Your task to perform on an android device: search for starred emails in the gmail app Image 0: 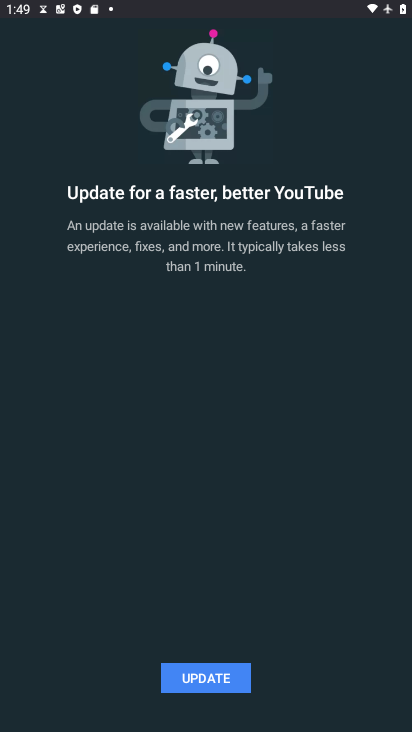
Step 0: press home button
Your task to perform on an android device: search for starred emails in the gmail app Image 1: 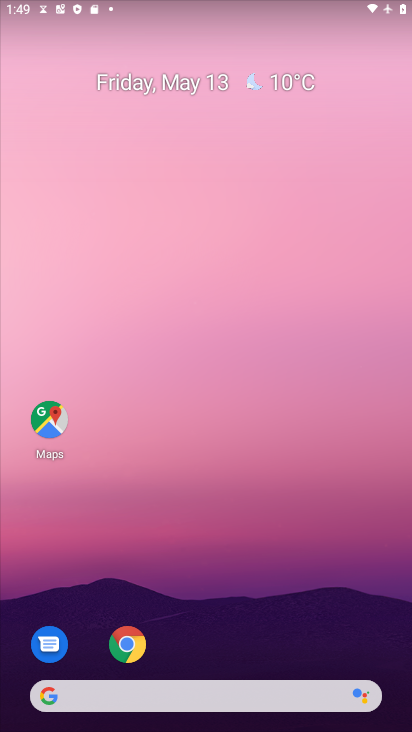
Step 1: drag from (209, 699) to (212, 190)
Your task to perform on an android device: search for starred emails in the gmail app Image 2: 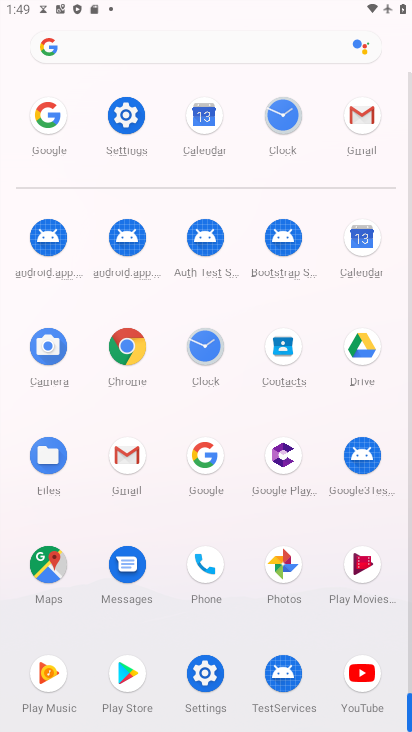
Step 2: click (130, 455)
Your task to perform on an android device: search for starred emails in the gmail app Image 3: 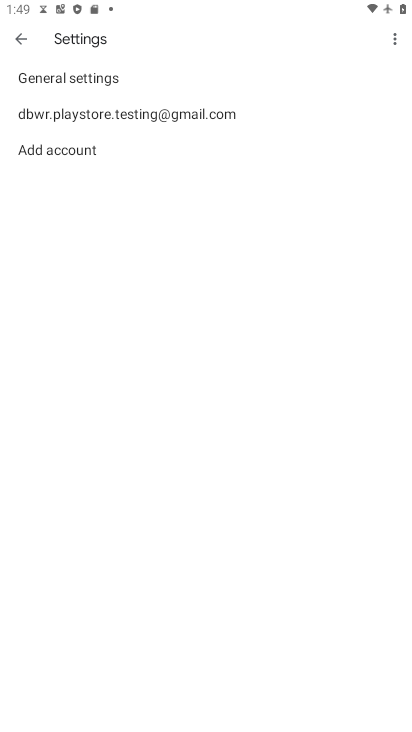
Step 3: click (20, 39)
Your task to perform on an android device: search for starred emails in the gmail app Image 4: 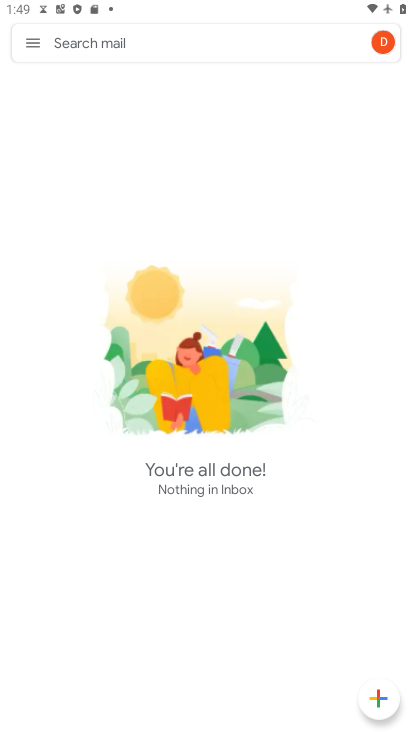
Step 4: click (31, 41)
Your task to perform on an android device: search for starred emails in the gmail app Image 5: 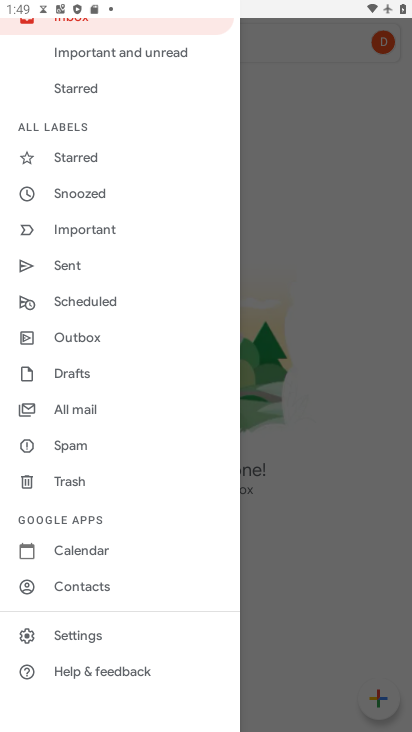
Step 5: click (88, 157)
Your task to perform on an android device: search for starred emails in the gmail app Image 6: 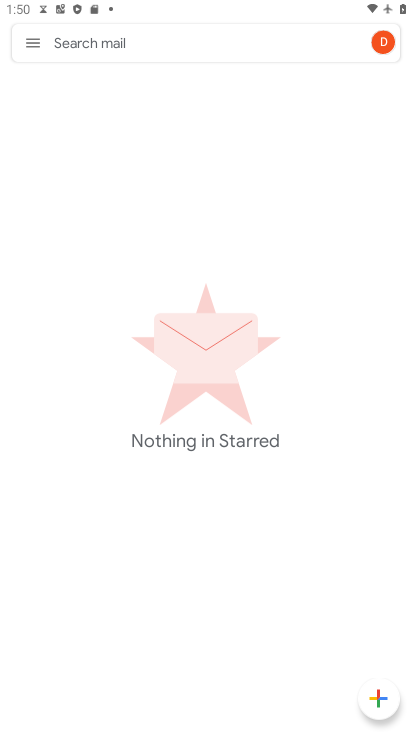
Step 6: task complete